Your task to perform on an android device: Open maps Image 0: 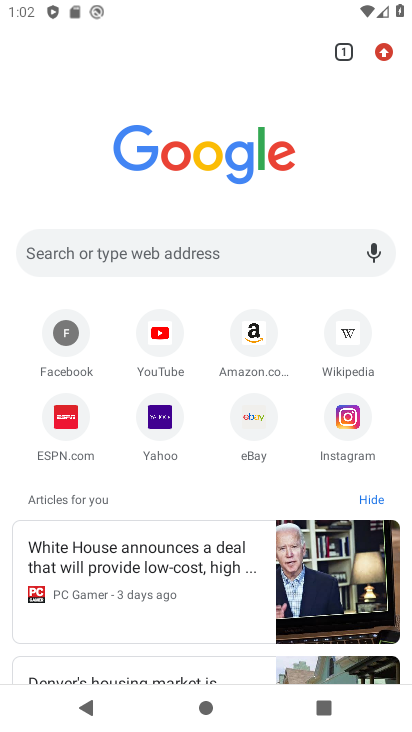
Step 0: press home button
Your task to perform on an android device: Open maps Image 1: 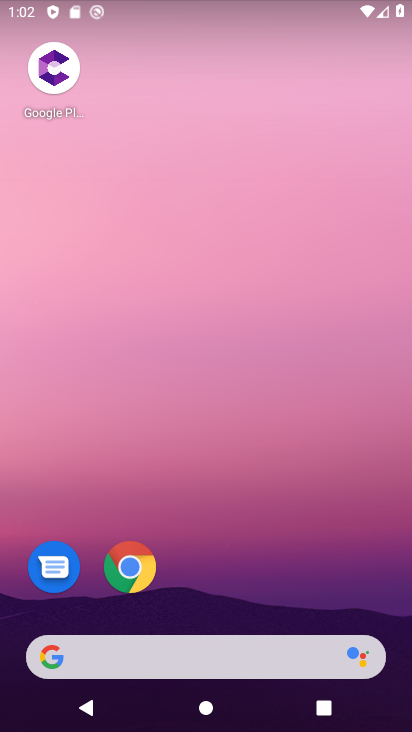
Step 1: drag from (230, 620) to (258, 74)
Your task to perform on an android device: Open maps Image 2: 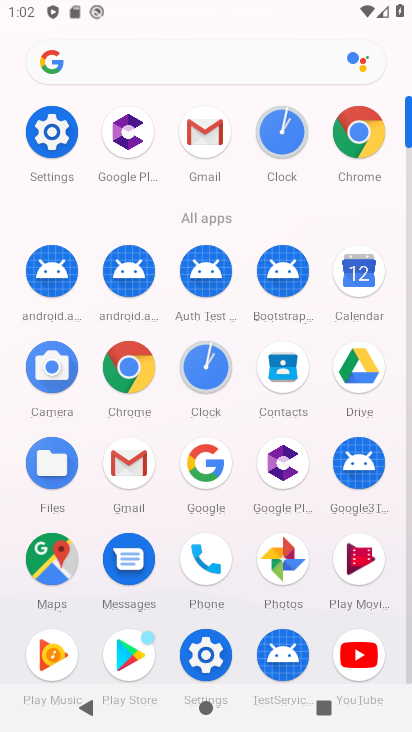
Step 2: click (52, 555)
Your task to perform on an android device: Open maps Image 3: 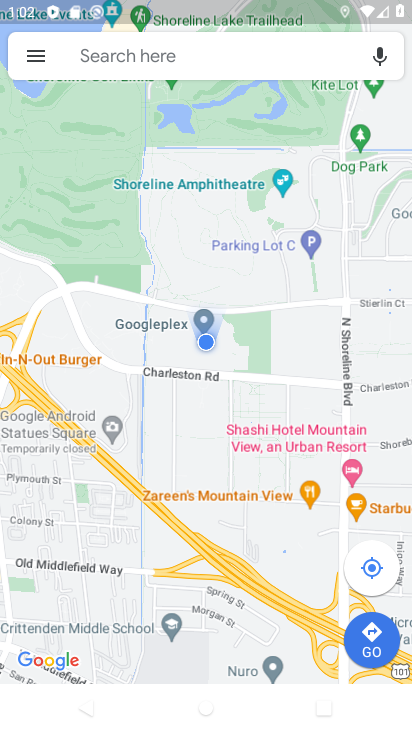
Step 3: task complete